Your task to perform on an android device: Go to Wikipedia Image 0: 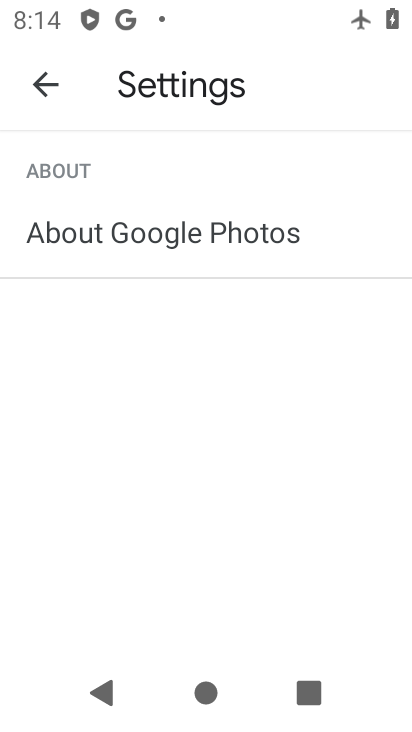
Step 0: click (256, 204)
Your task to perform on an android device: Go to Wikipedia Image 1: 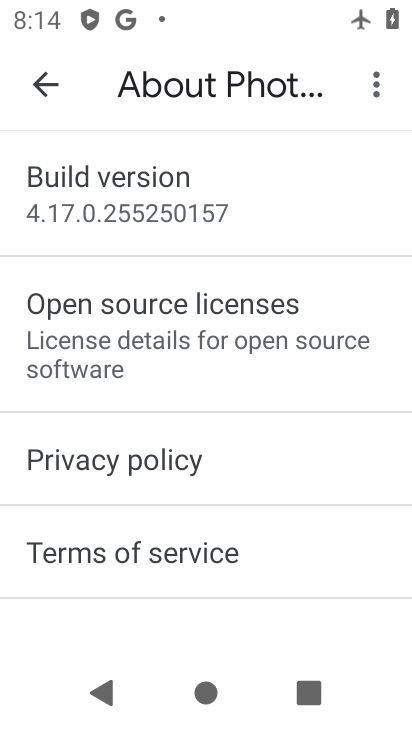
Step 1: click (42, 81)
Your task to perform on an android device: Go to Wikipedia Image 2: 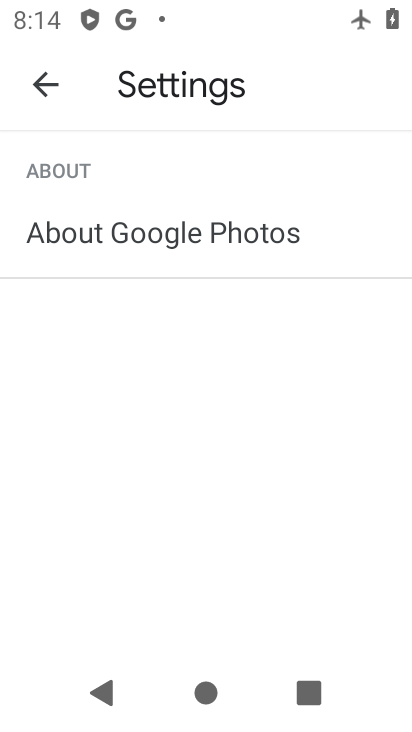
Step 2: press home button
Your task to perform on an android device: Go to Wikipedia Image 3: 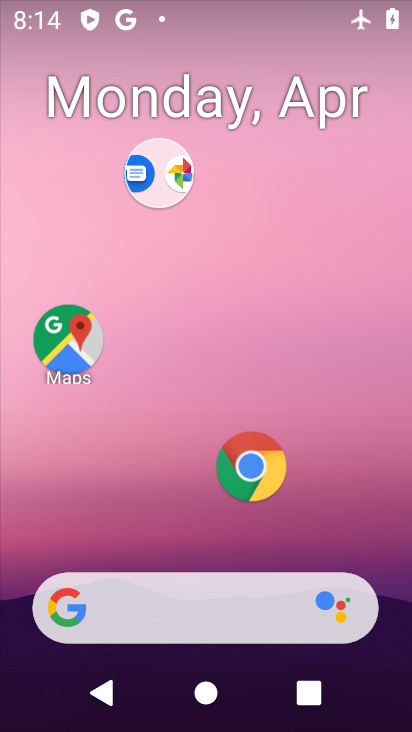
Step 3: drag from (225, 432) to (292, 238)
Your task to perform on an android device: Go to Wikipedia Image 4: 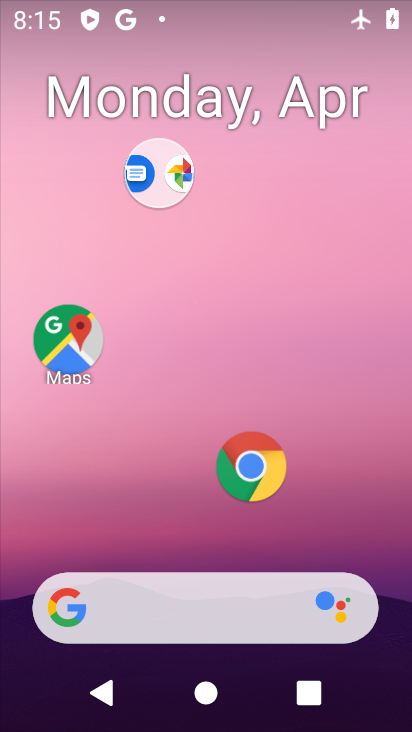
Step 4: drag from (180, 501) to (266, 288)
Your task to perform on an android device: Go to Wikipedia Image 5: 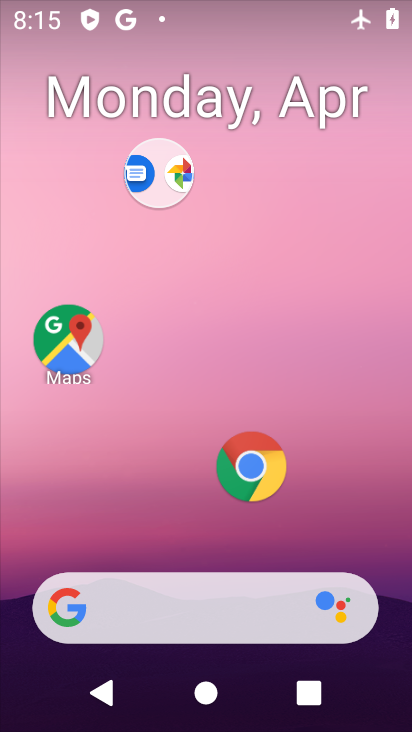
Step 5: drag from (225, 390) to (279, 225)
Your task to perform on an android device: Go to Wikipedia Image 6: 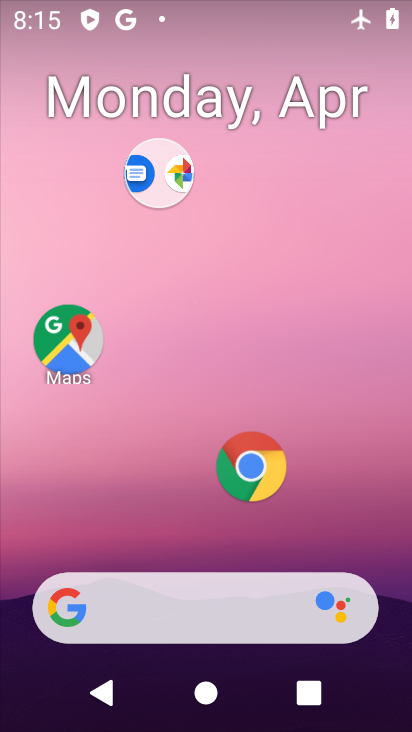
Step 6: drag from (197, 464) to (264, 202)
Your task to perform on an android device: Go to Wikipedia Image 7: 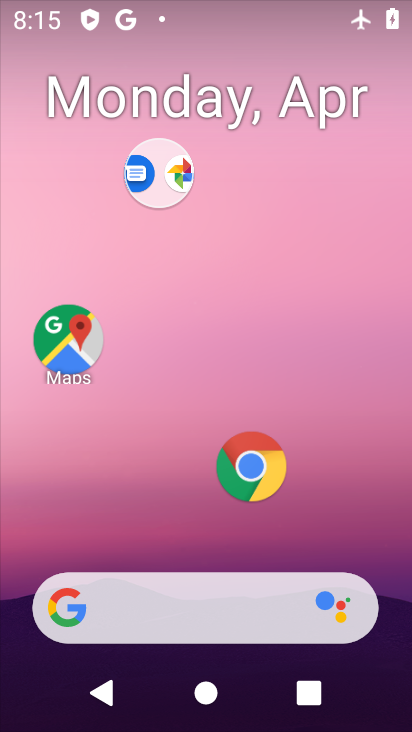
Step 7: drag from (199, 493) to (276, 164)
Your task to perform on an android device: Go to Wikipedia Image 8: 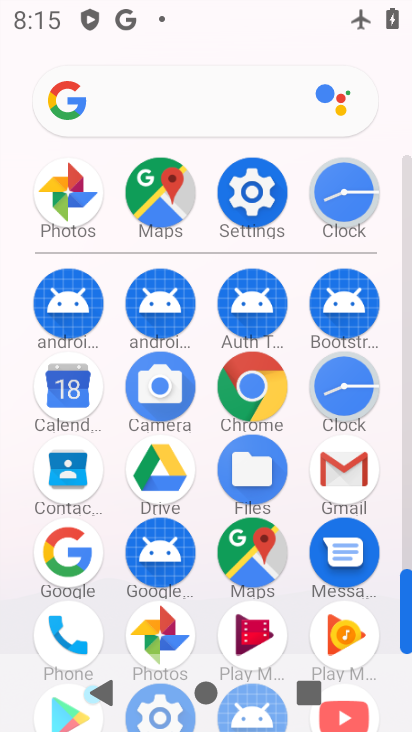
Step 8: drag from (195, 603) to (216, 352)
Your task to perform on an android device: Go to Wikipedia Image 9: 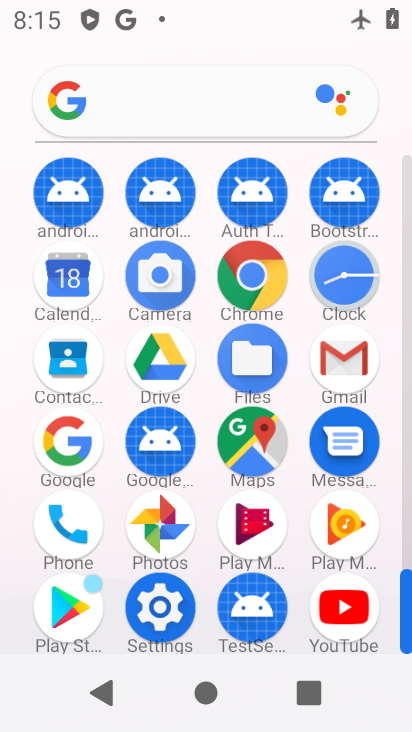
Step 9: drag from (196, 504) to (203, 458)
Your task to perform on an android device: Go to Wikipedia Image 10: 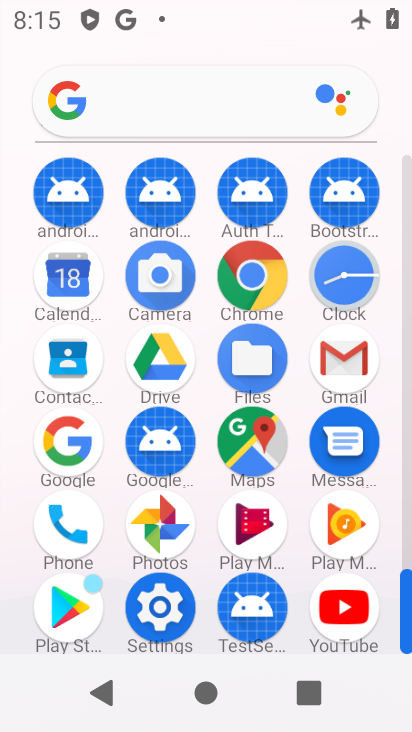
Step 10: click (251, 275)
Your task to perform on an android device: Go to Wikipedia Image 11: 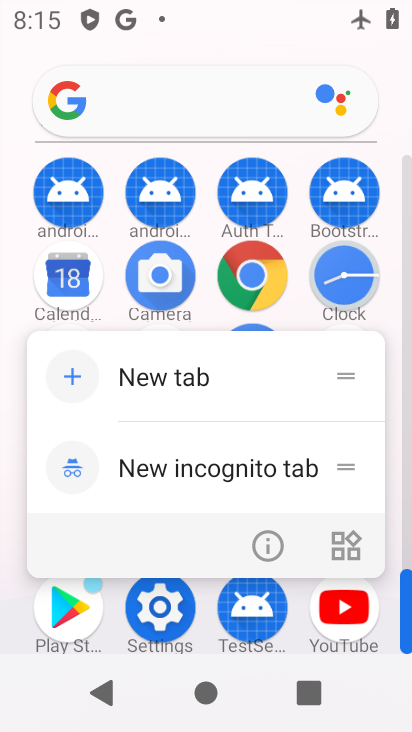
Step 11: click (274, 558)
Your task to perform on an android device: Go to Wikipedia Image 12: 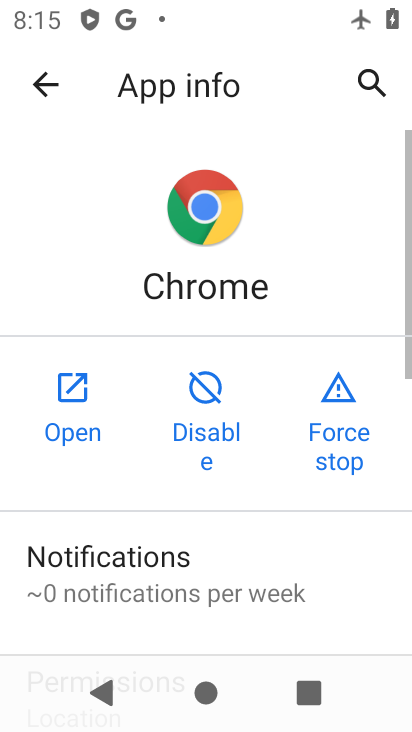
Step 12: click (81, 383)
Your task to perform on an android device: Go to Wikipedia Image 13: 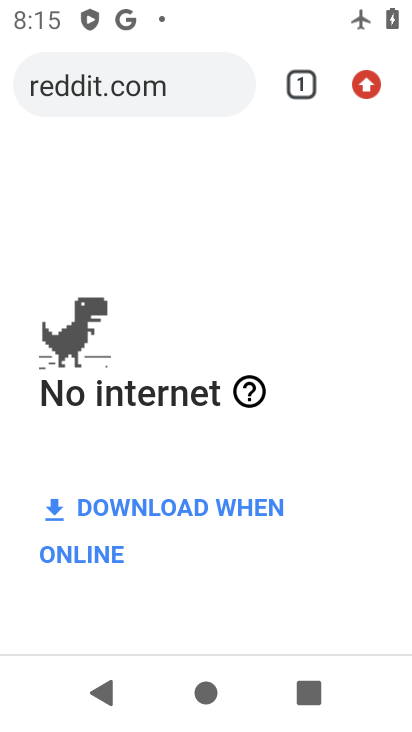
Step 13: click (148, 74)
Your task to perform on an android device: Go to Wikipedia Image 14: 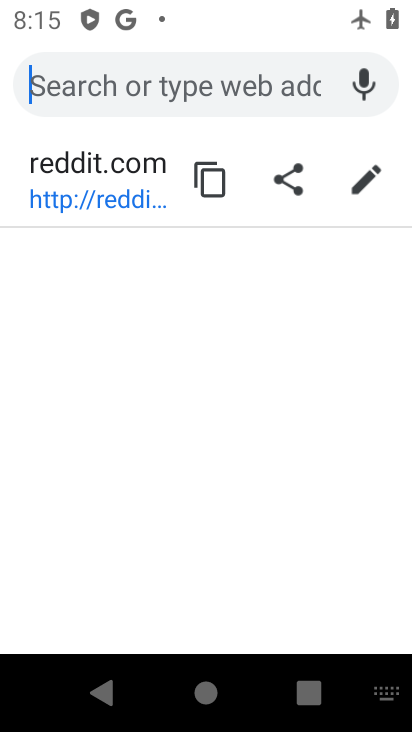
Step 14: type "wikipedia"
Your task to perform on an android device: Go to Wikipedia Image 15: 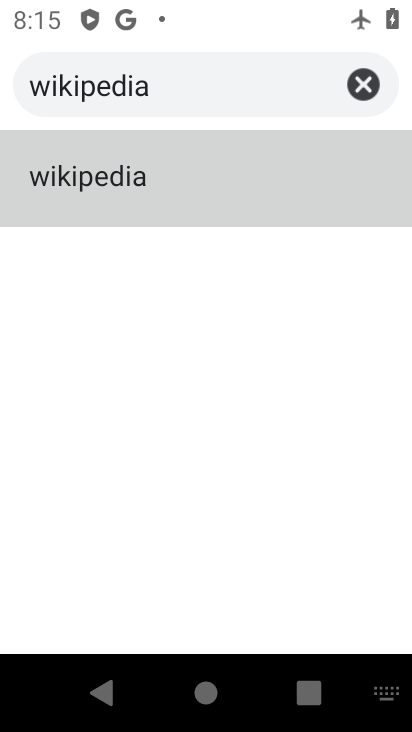
Step 15: click (87, 192)
Your task to perform on an android device: Go to Wikipedia Image 16: 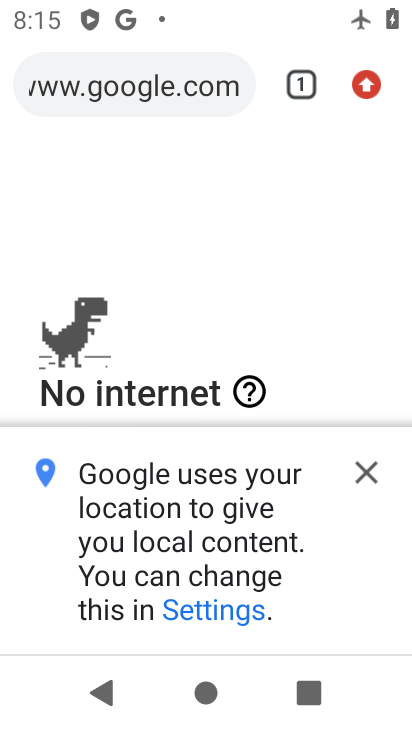
Step 16: task complete